Your task to perform on an android device: toggle notifications settings in the gmail app Image 0: 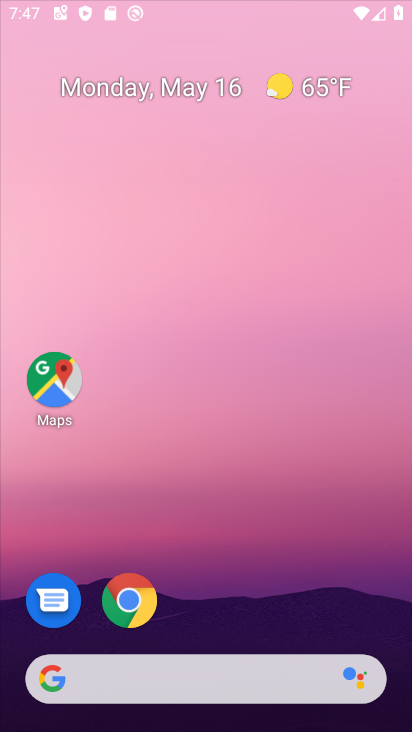
Step 0: click (260, 0)
Your task to perform on an android device: toggle notifications settings in the gmail app Image 1: 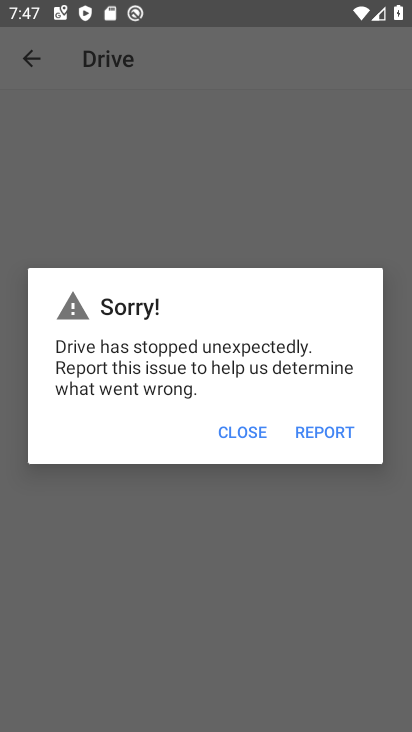
Step 1: press home button
Your task to perform on an android device: toggle notifications settings in the gmail app Image 2: 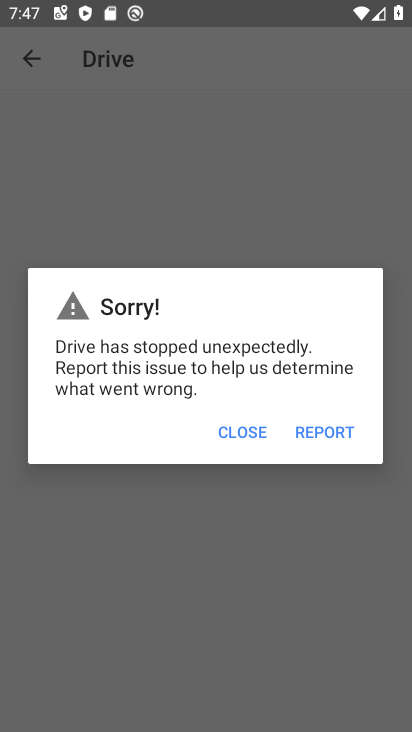
Step 2: press home button
Your task to perform on an android device: toggle notifications settings in the gmail app Image 3: 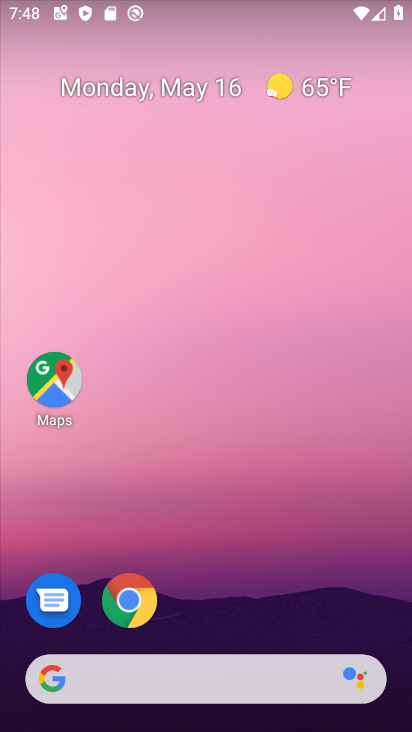
Step 3: drag from (207, 624) to (307, 4)
Your task to perform on an android device: toggle notifications settings in the gmail app Image 4: 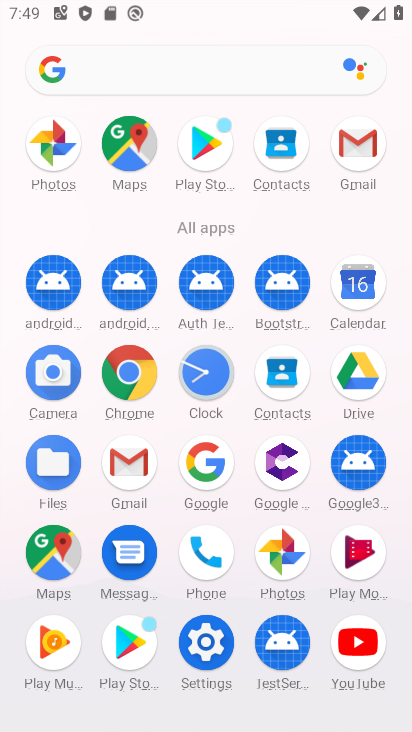
Step 4: click (133, 456)
Your task to perform on an android device: toggle notifications settings in the gmail app Image 5: 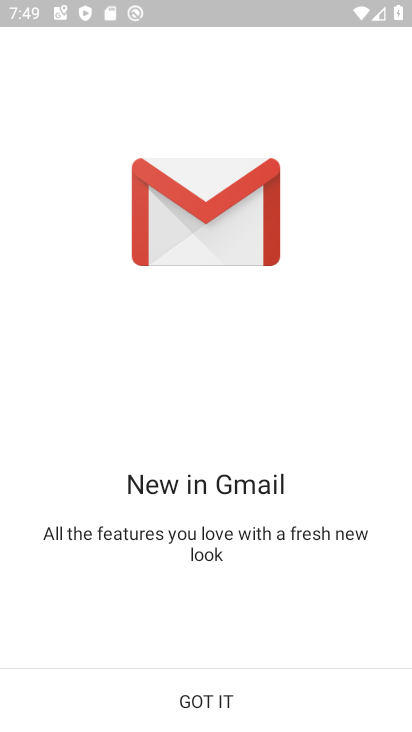
Step 5: click (208, 710)
Your task to perform on an android device: toggle notifications settings in the gmail app Image 6: 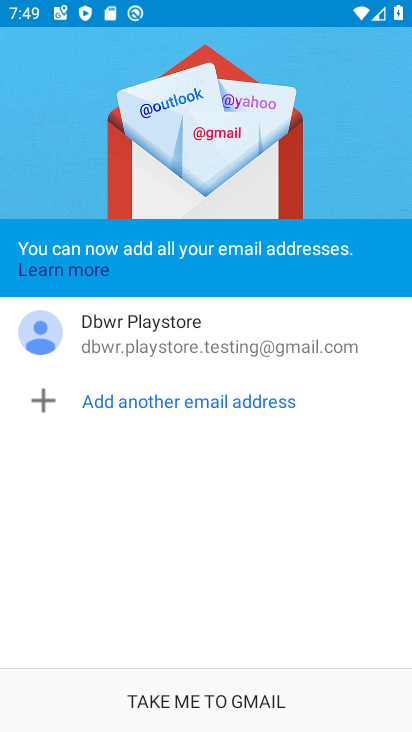
Step 6: click (181, 691)
Your task to perform on an android device: toggle notifications settings in the gmail app Image 7: 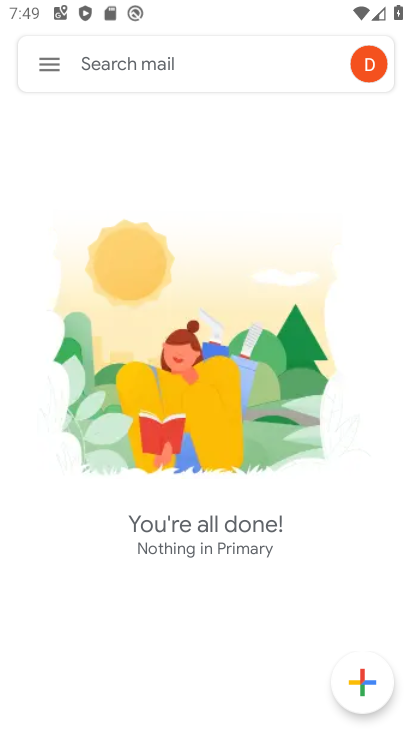
Step 7: click (38, 67)
Your task to perform on an android device: toggle notifications settings in the gmail app Image 8: 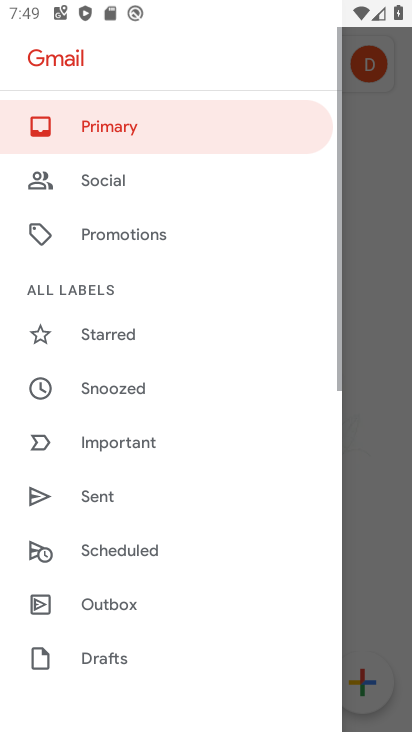
Step 8: drag from (172, 670) to (218, 170)
Your task to perform on an android device: toggle notifications settings in the gmail app Image 9: 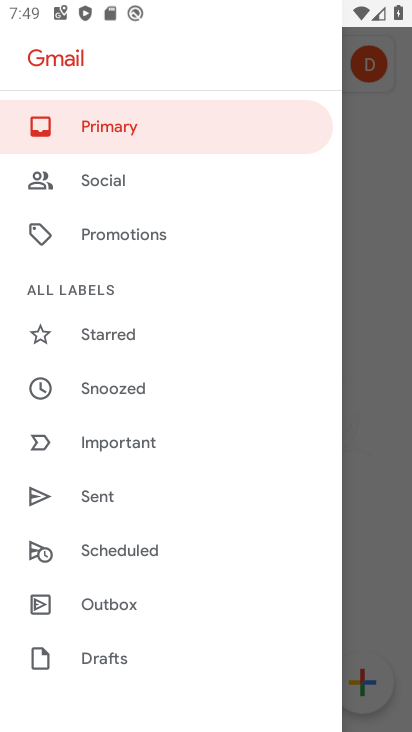
Step 9: drag from (183, 615) to (181, 111)
Your task to perform on an android device: toggle notifications settings in the gmail app Image 10: 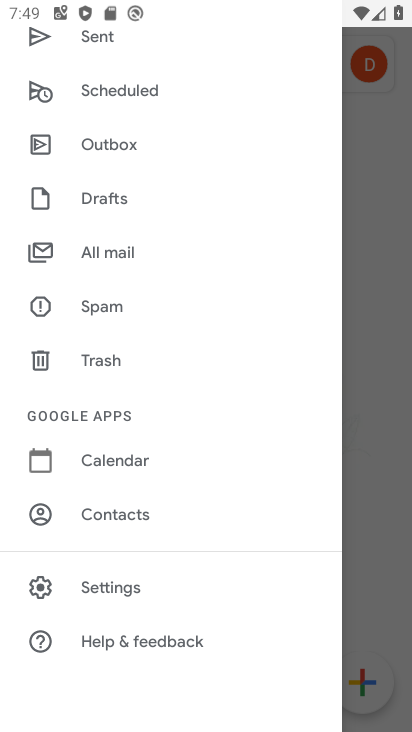
Step 10: click (143, 575)
Your task to perform on an android device: toggle notifications settings in the gmail app Image 11: 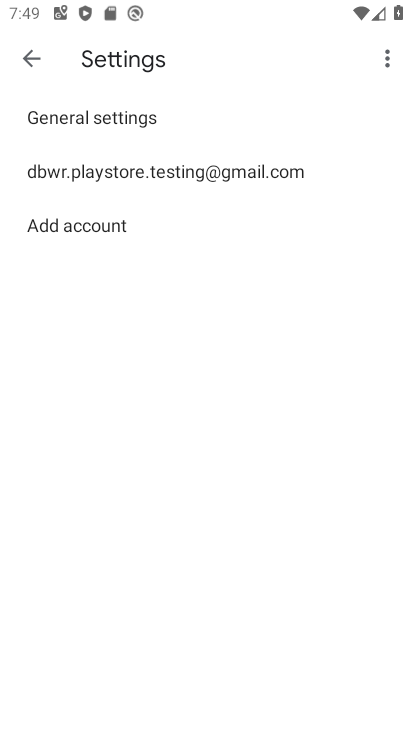
Step 11: click (266, 171)
Your task to perform on an android device: toggle notifications settings in the gmail app Image 12: 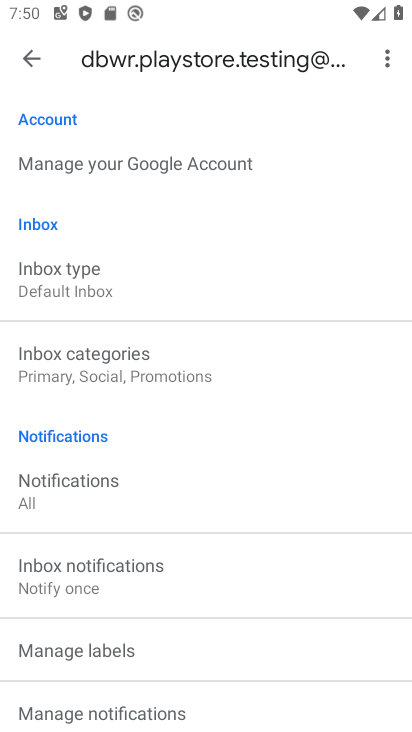
Step 12: drag from (157, 529) to (224, 31)
Your task to perform on an android device: toggle notifications settings in the gmail app Image 13: 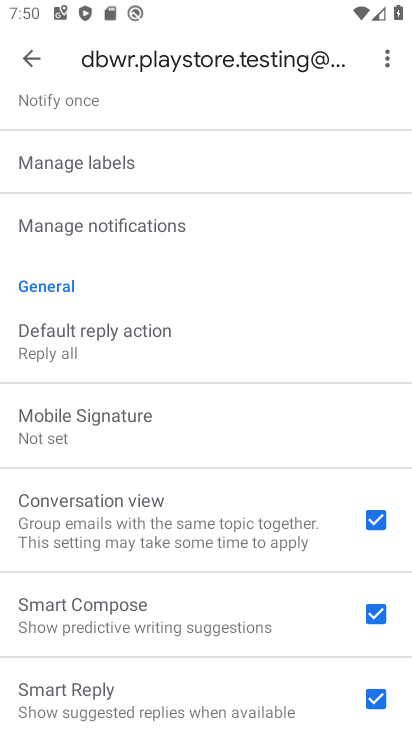
Step 13: click (138, 239)
Your task to perform on an android device: toggle notifications settings in the gmail app Image 14: 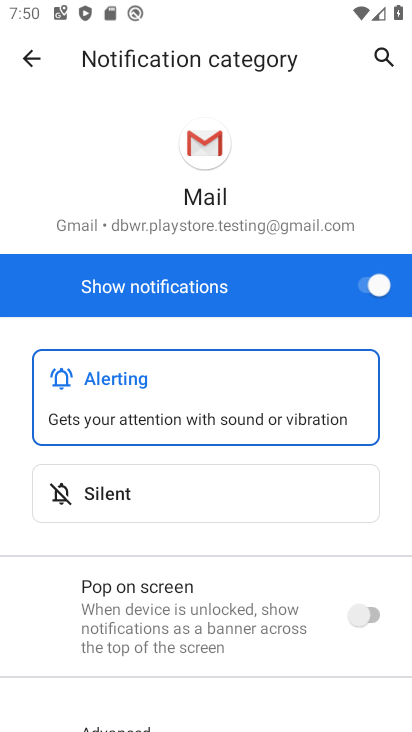
Step 14: drag from (168, 556) to (229, 75)
Your task to perform on an android device: toggle notifications settings in the gmail app Image 15: 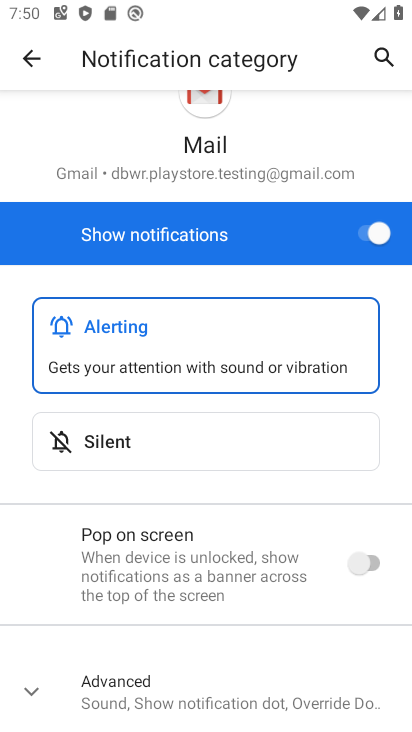
Step 15: click (336, 254)
Your task to perform on an android device: toggle notifications settings in the gmail app Image 16: 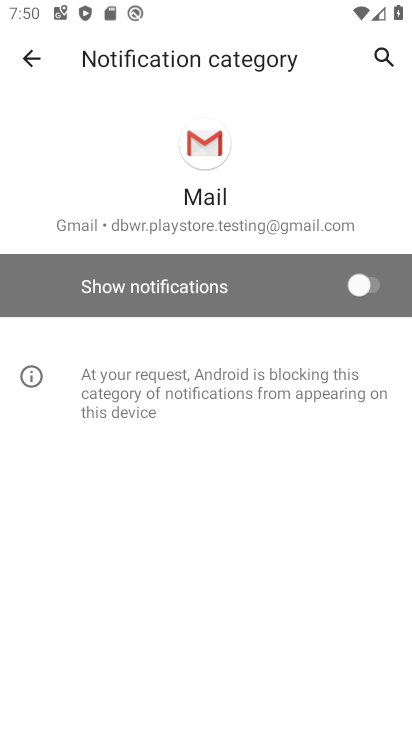
Step 16: task complete